Your task to perform on an android device: Show me popular games on the Play Store Image 0: 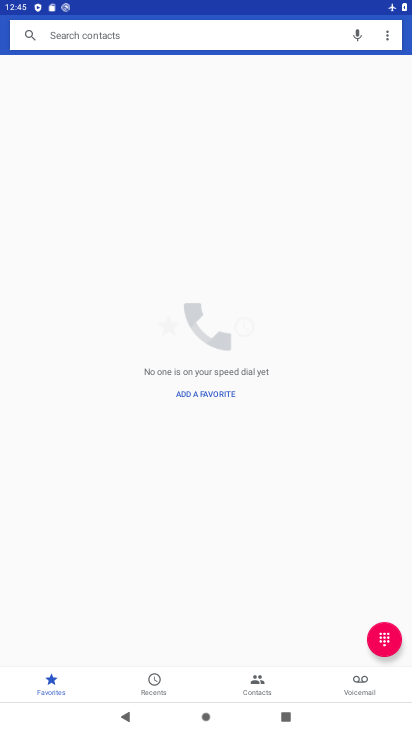
Step 0: press home button
Your task to perform on an android device: Show me popular games on the Play Store Image 1: 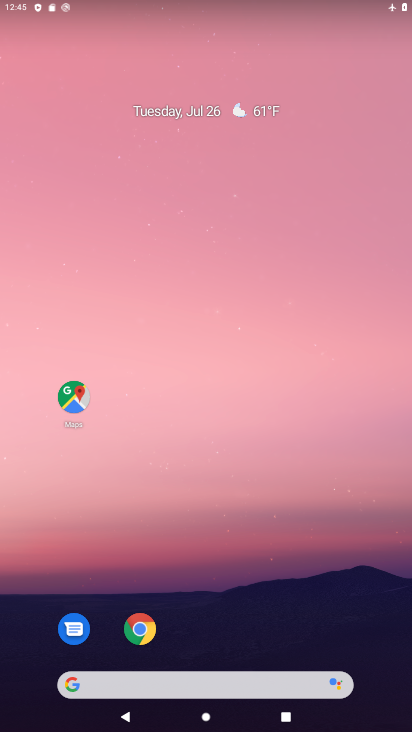
Step 1: drag from (210, 650) to (175, 95)
Your task to perform on an android device: Show me popular games on the Play Store Image 2: 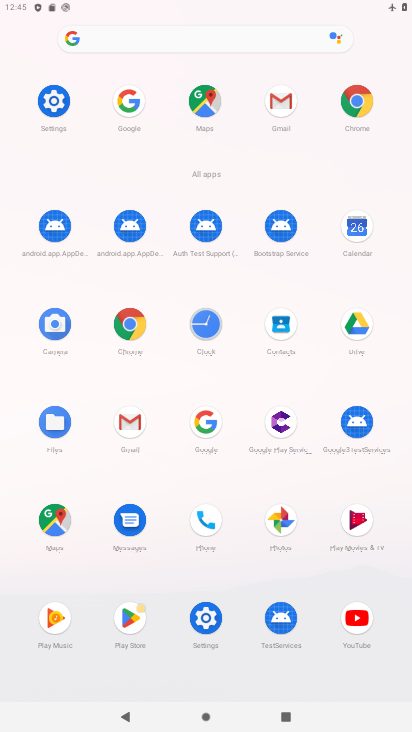
Step 2: click (119, 612)
Your task to perform on an android device: Show me popular games on the Play Store Image 3: 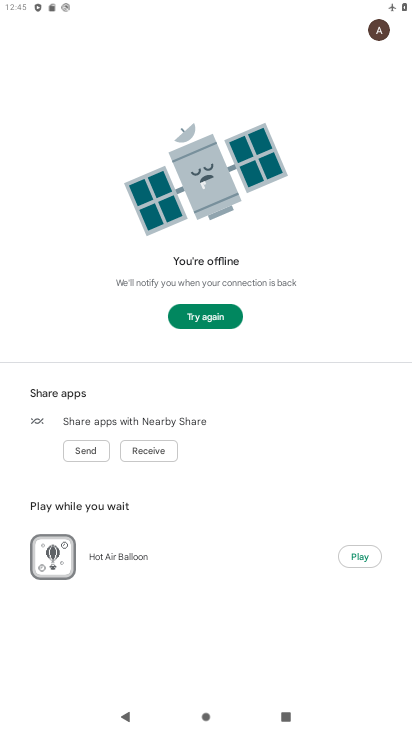
Step 3: click (197, 324)
Your task to perform on an android device: Show me popular games on the Play Store Image 4: 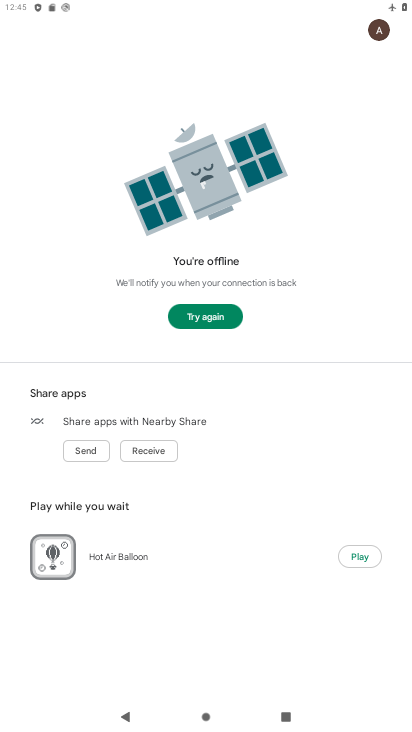
Step 4: task complete